Your task to perform on an android device: Open maps Image 0: 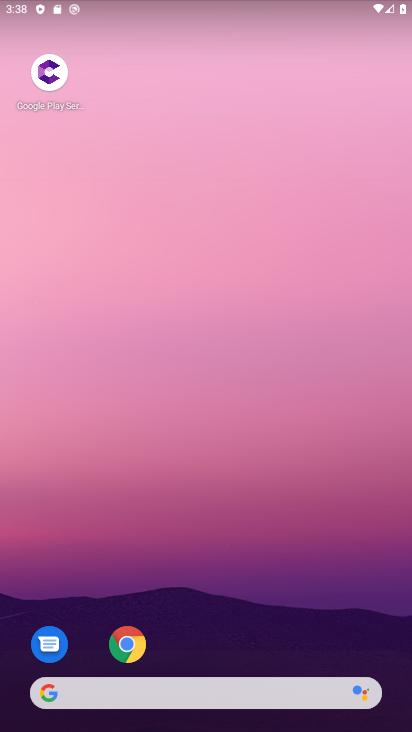
Step 0: drag from (219, 618) to (203, 435)
Your task to perform on an android device: Open maps Image 1: 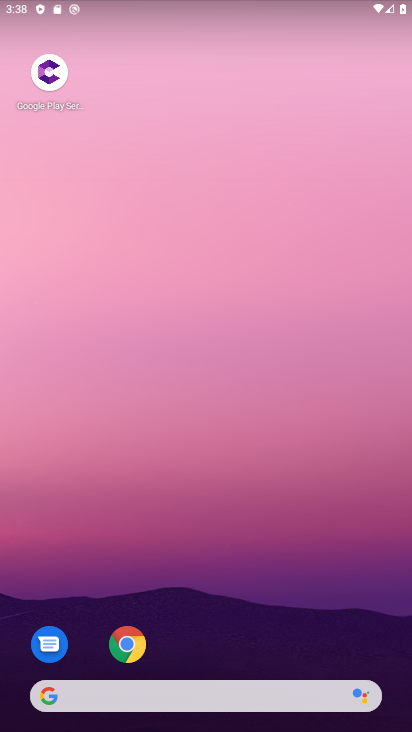
Step 1: drag from (220, 409) to (211, 207)
Your task to perform on an android device: Open maps Image 2: 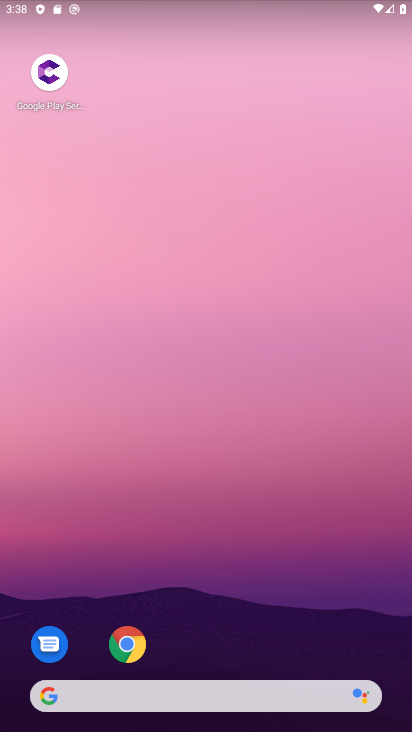
Step 2: drag from (229, 656) to (210, 51)
Your task to perform on an android device: Open maps Image 3: 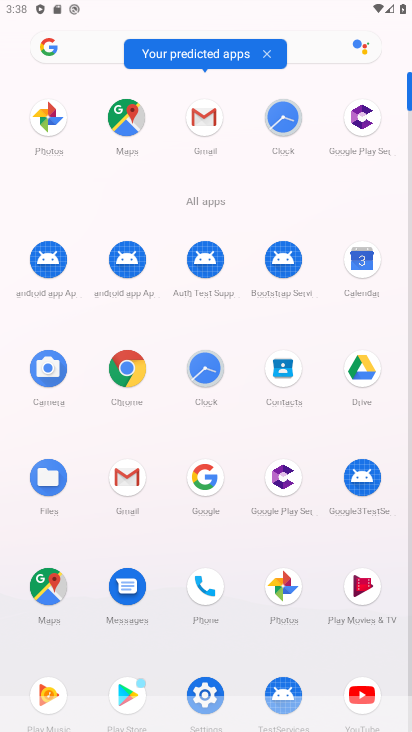
Step 3: click (47, 599)
Your task to perform on an android device: Open maps Image 4: 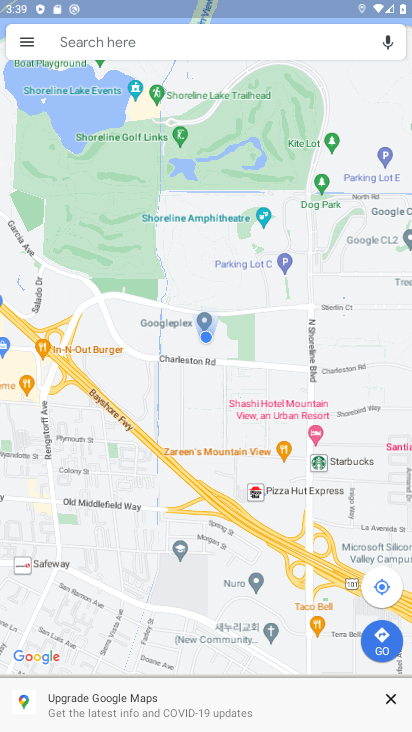
Step 4: task complete